Your task to perform on an android device: find photos in the google photos app Image 0: 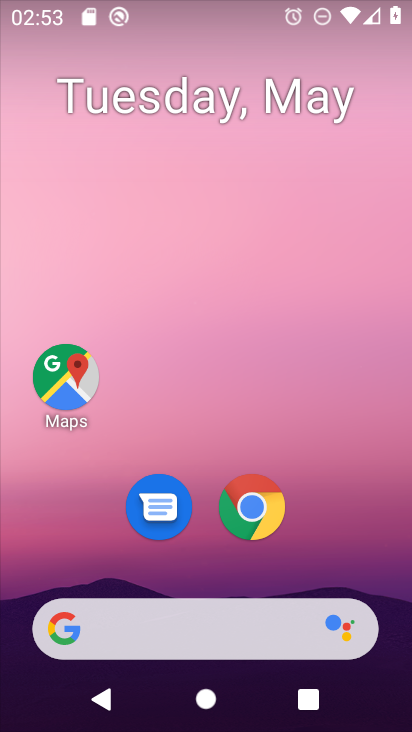
Step 0: drag from (211, 583) to (213, 245)
Your task to perform on an android device: find photos in the google photos app Image 1: 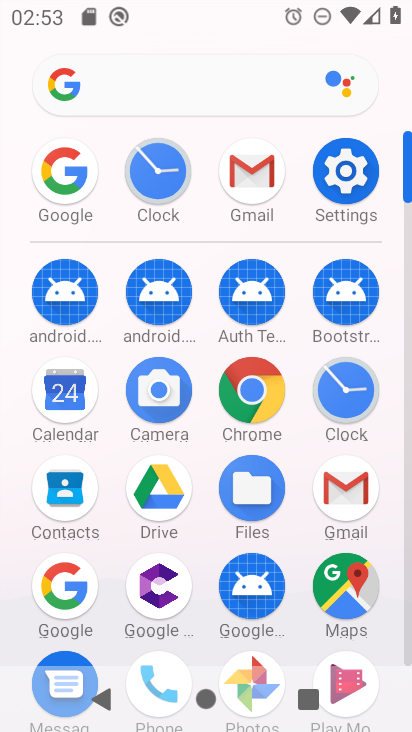
Step 1: drag from (108, 604) to (146, 277)
Your task to perform on an android device: find photos in the google photos app Image 2: 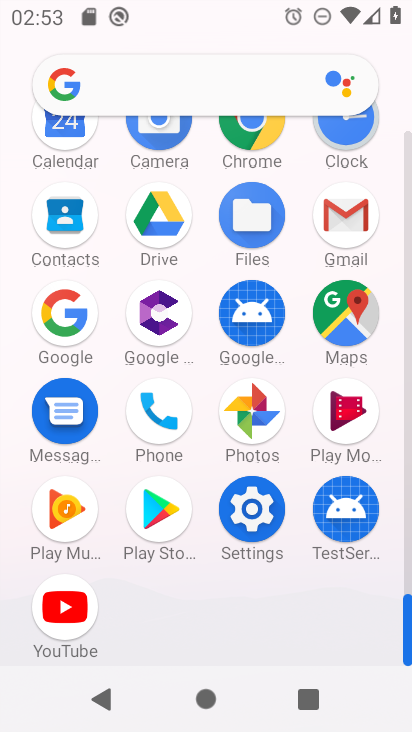
Step 2: click (232, 425)
Your task to perform on an android device: find photos in the google photos app Image 3: 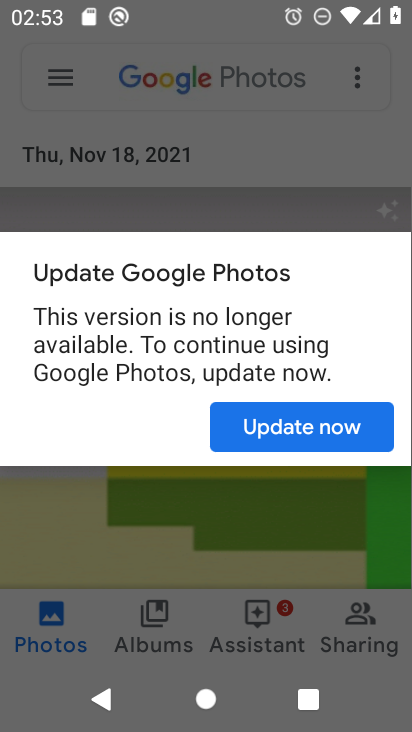
Step 3: click (263, 432)
Your task to perform on an android device: find photos in the google photos app Image 4: 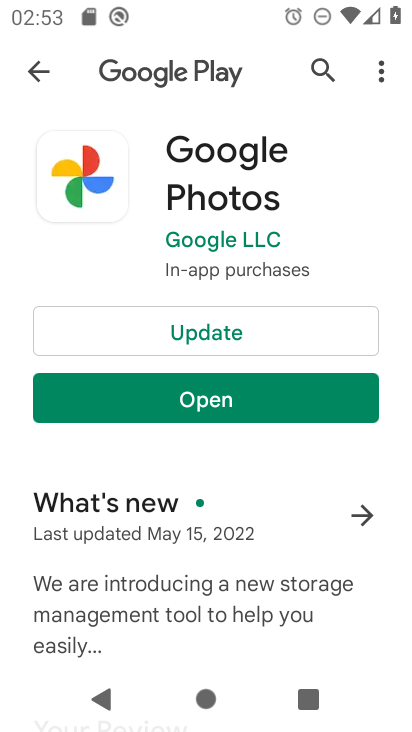
Step 4: click (184, 387)
Your task to perform on an android device: find photos in the google photos app Image 5: 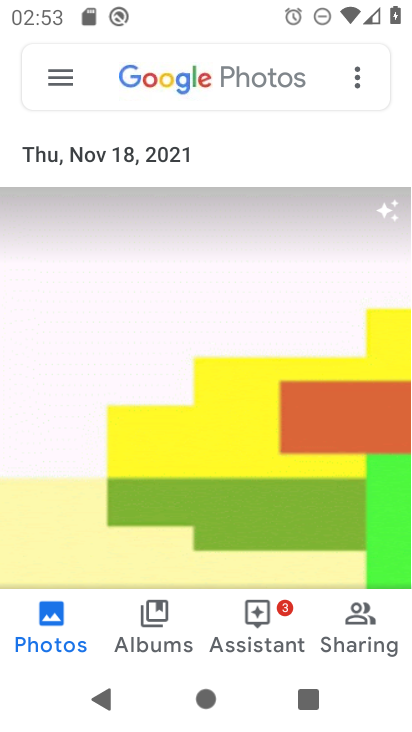
Step 5: click (203, 84)
Your task to perform on an android device: find photos in the google photos app Image 6: 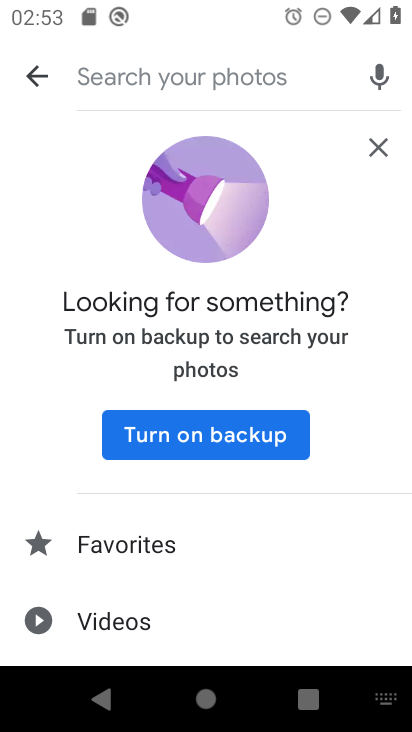
Step 6: type "aa"
Your task to perform on an android device: find photos in the google photos app Image 7: 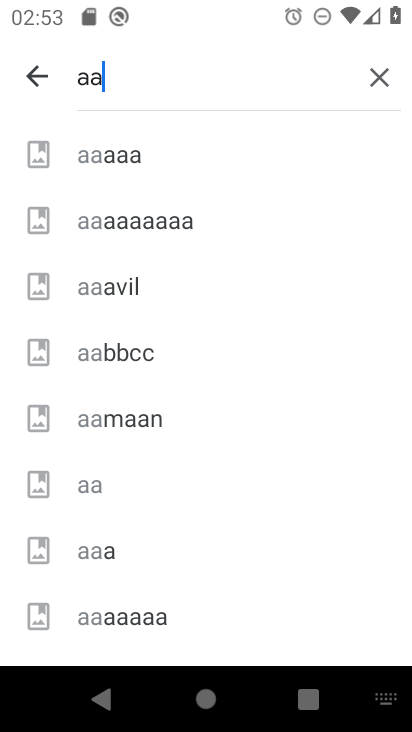
Step 7: click (150, 427)
Your task to perform on an android device: find photos in the google photos app Image 8: 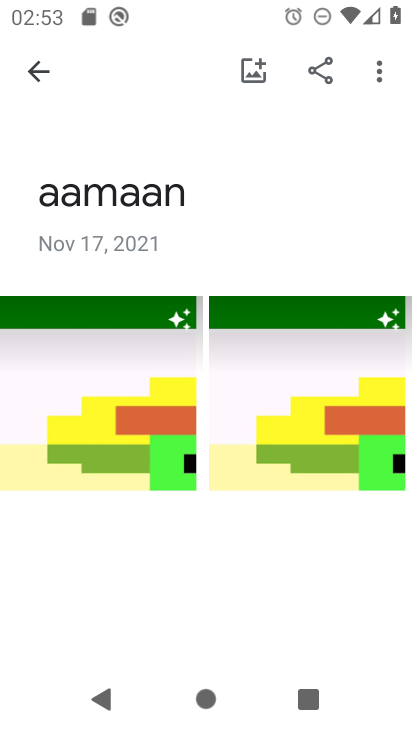
Step 8: task complete